Your task to perform on an android device: Go to CNN.com Image 0: 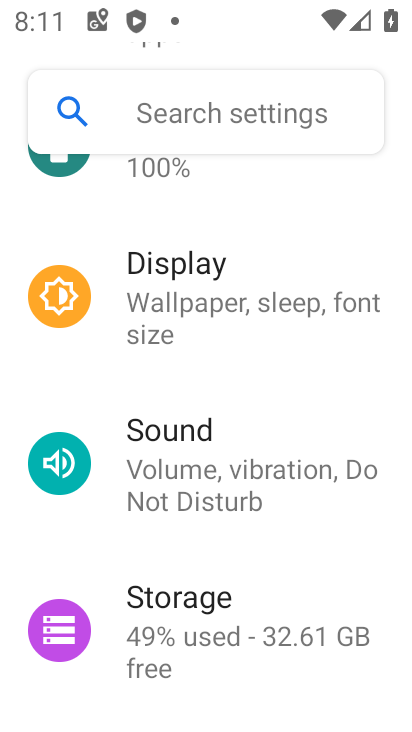
Step 0: press back button
Your task to perform on an android device: Go to CNN.com Image 1: 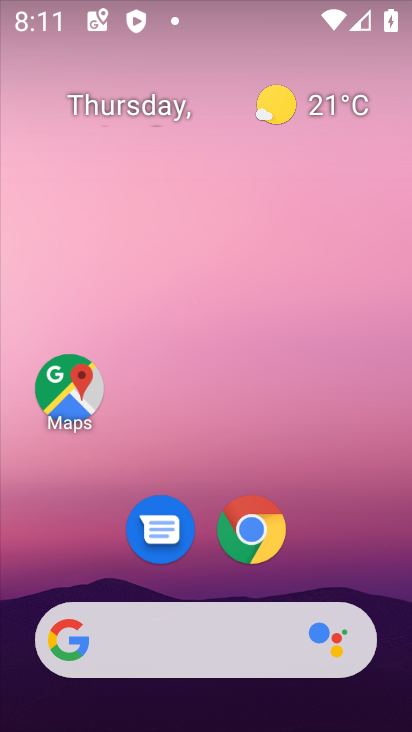
Step 1: click (216, 654)
Your task to perform on an android device: Go to CNN.com Image 2: 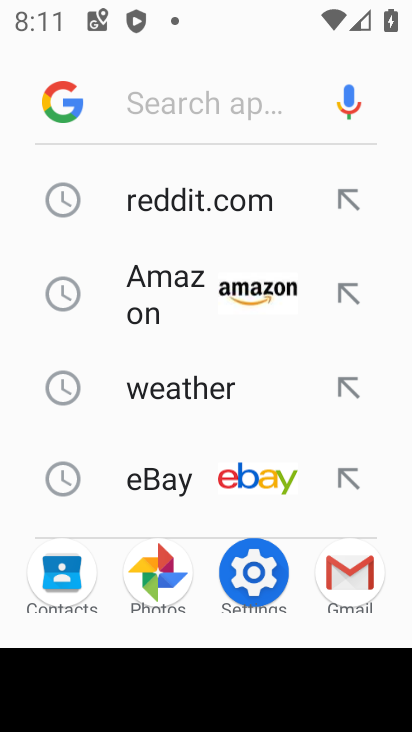
Step 2: type "cnn.com"
Your task to perform on an android device: Go to CNN.com Image 3: 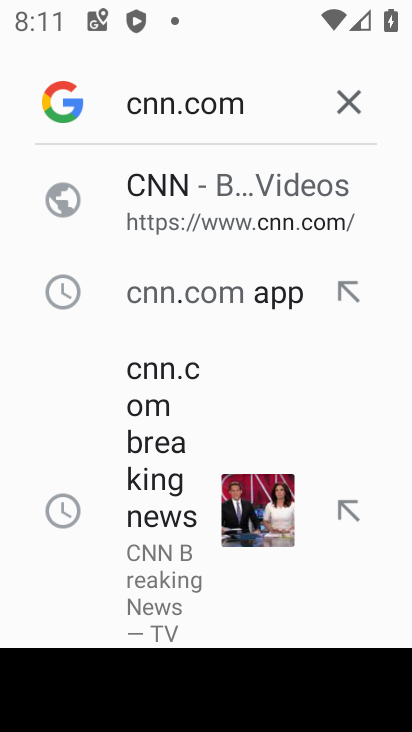
Step 3: click (280, 168)
Your task to perform on an android device: Go to CNN.com Image 4: 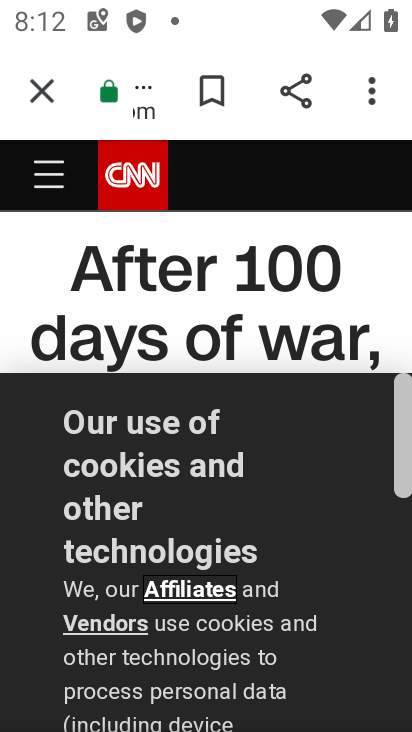
Step 4: task complete